Your task to perform on an android device: open the mobile data screen to see how much data has been used Image 0: 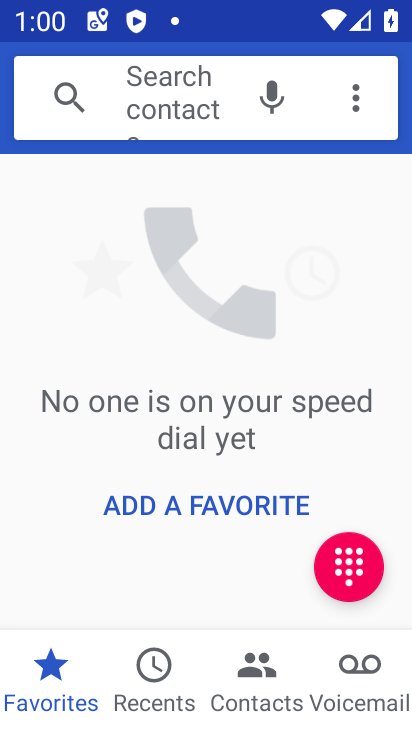
Step 0: press back button
Your task to perform on an android device: open the mobile data screen to see how much data has been used Image 1: 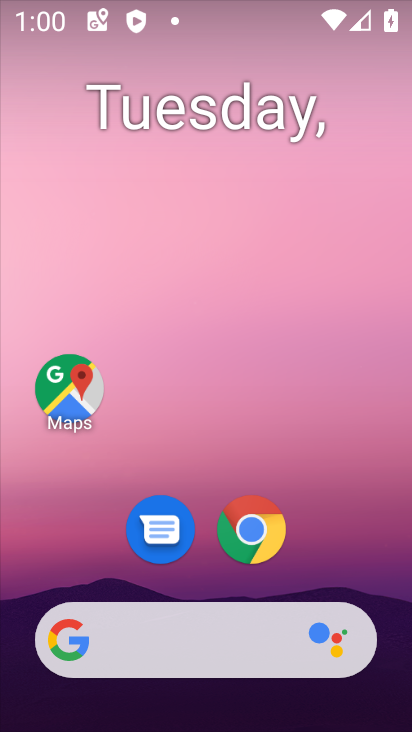
Step 1: drag from (164, 601) to (274, 50)
Your task to perform on an android device: open the mobile data screen to see how much data has been used Image 2: 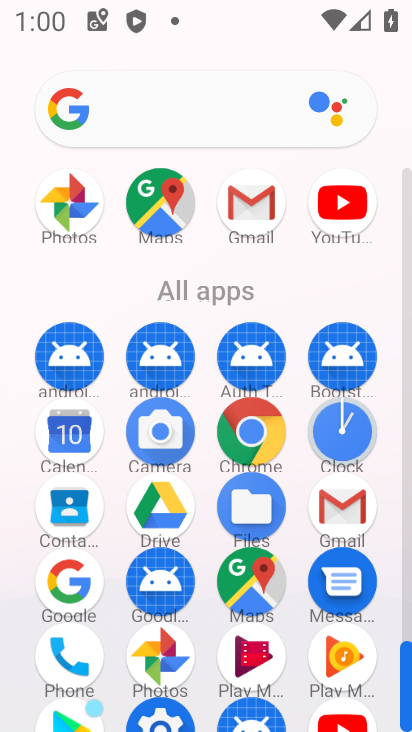
Step 2: drag from (171, 644) to (236, 398)
Your task to perform on an android device: open the mobile data screen to see how much data has been used Image 3: 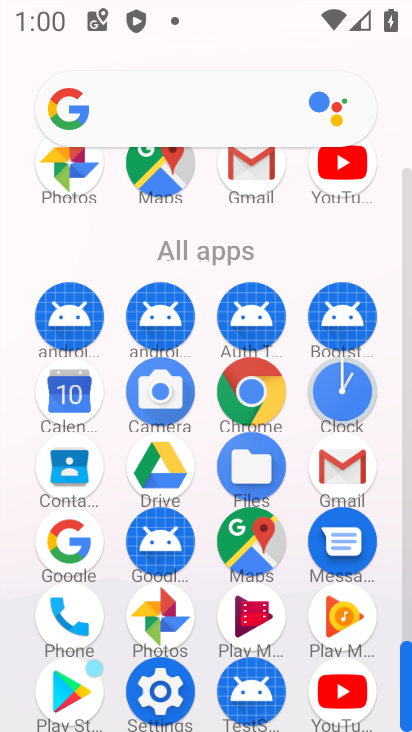
Step 3: click (164, 691)
Your task to perform on an android device: open the mobile data screen to see how much data has been used Image 4: 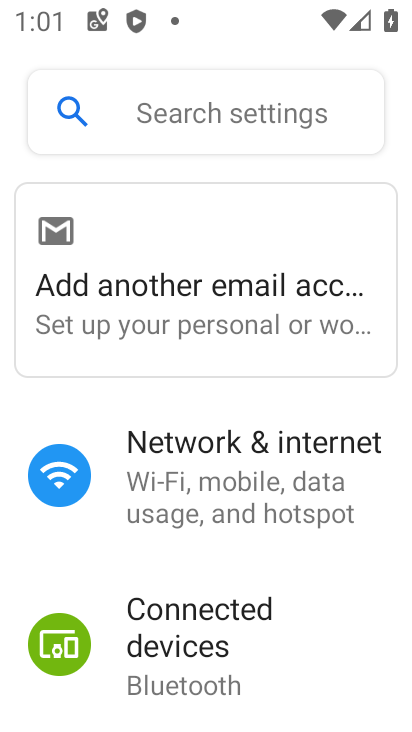
Step 4: click (275, 508)
Your task to perform on an android device: open the mobile data screen to see how much data has been used Image 5: 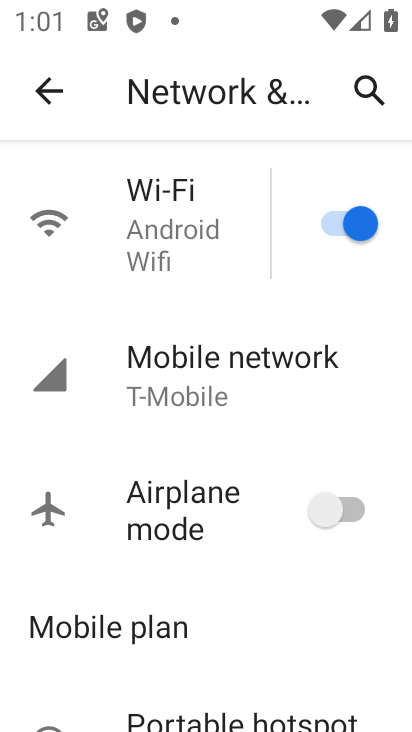
Step 5: click (239, 360)
Your task to perform on an android device: open the mobile data screen to see how much data has been used Image 6: 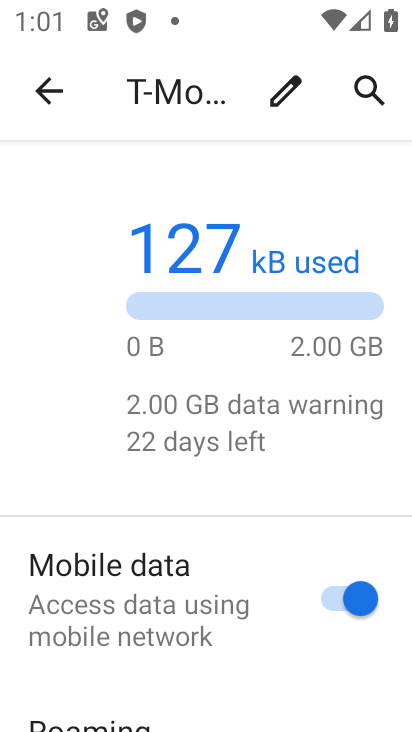
Step 6: task complete